Your task to perform on an android device: Go to accessibility settings Image 0: 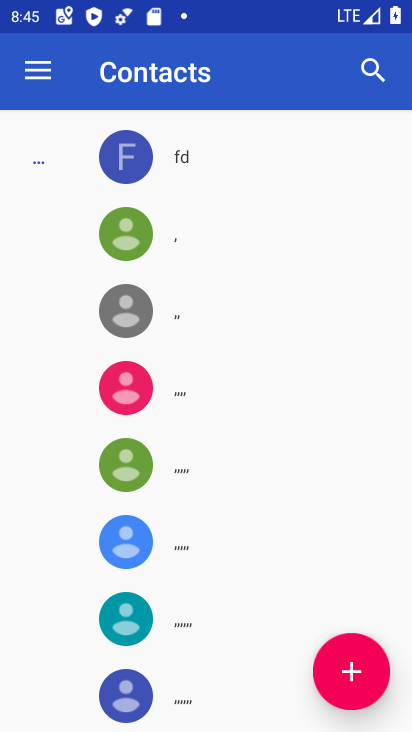
Step 0: press home button
Your task to perform on an android device: Go to accessibility settings Image 1: 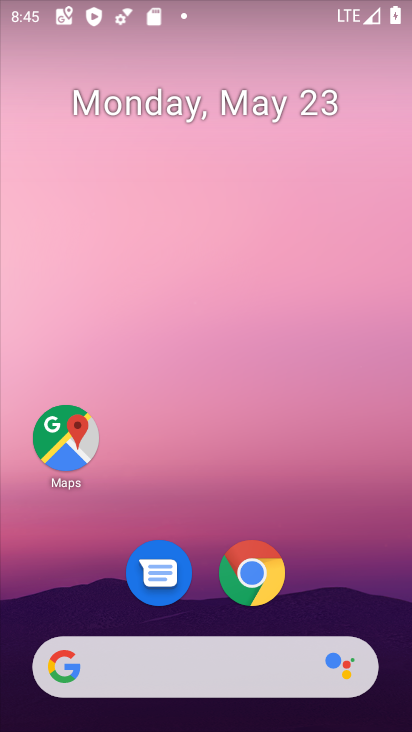
Step 1: drag from (255, 494) to (185, 72)
Your task to perform on an android device: Go to accessibility settings Image 2: 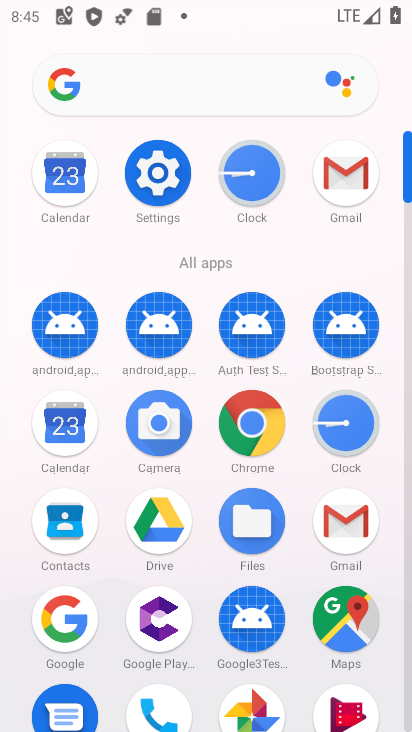
Step 2: click (148, 160)
Your task to perform on an android device: Go to accessibility settings Image 3: 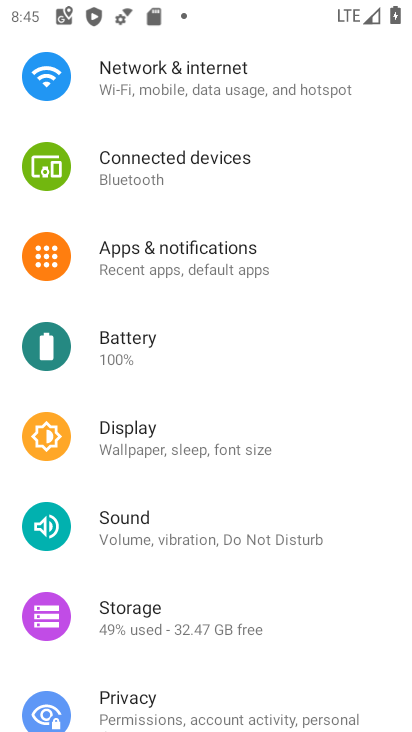
Step 3: drag from (240, 609) to (272, 44)
Your task to perform on an android device: Go to accessibility settings Image 4: 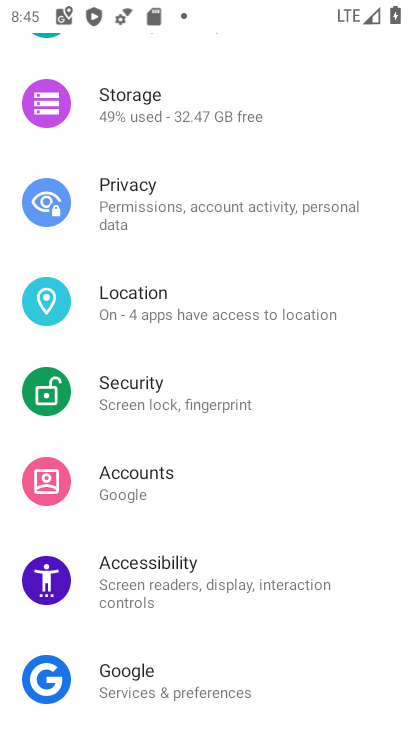
Step 4: click (221, 569)
Your task to perform on an android device: Go to accessibility settings Image 5: 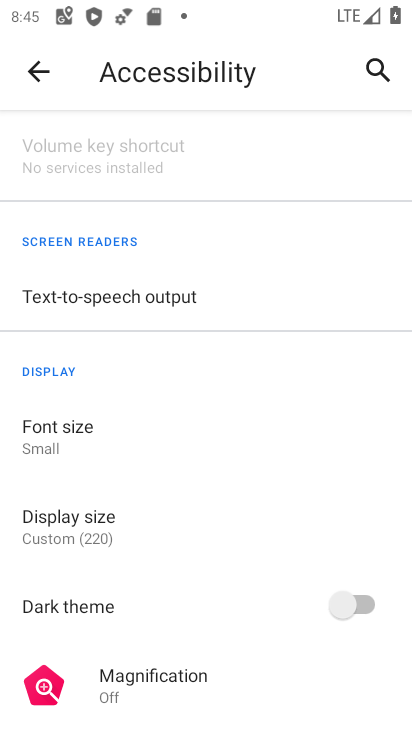
Step 5: task complete